Your task to perform on an android device: Go to Amazon Image 0: 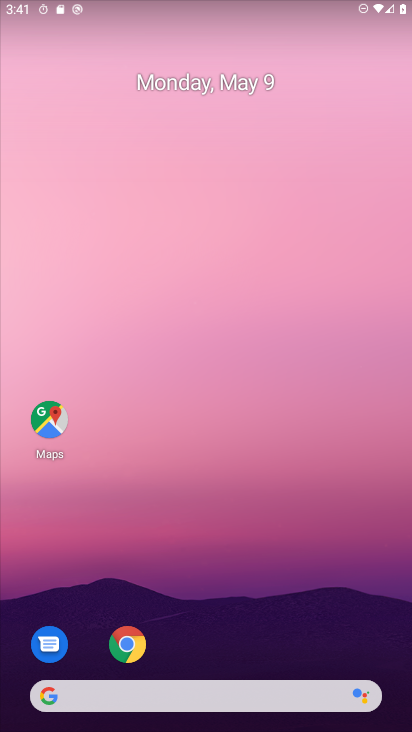
Step 0: drag from (280, 662) to (280, 182)
Your task to perform on an android device: Go to Amazon Image 1: 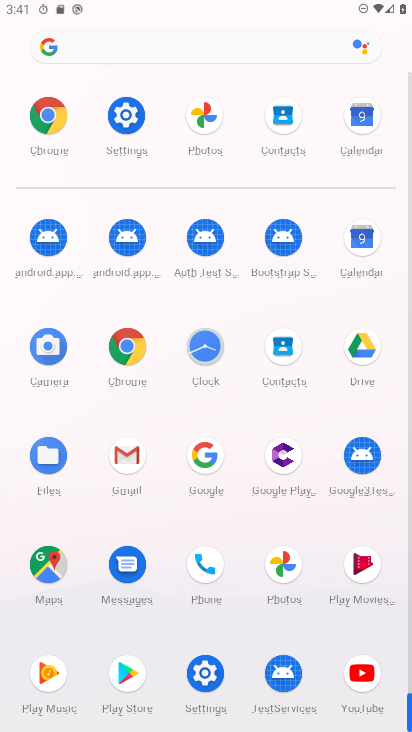
Step 1: click (132, 384)
Your task to perform on an android device: Go to Amazon Image 2: 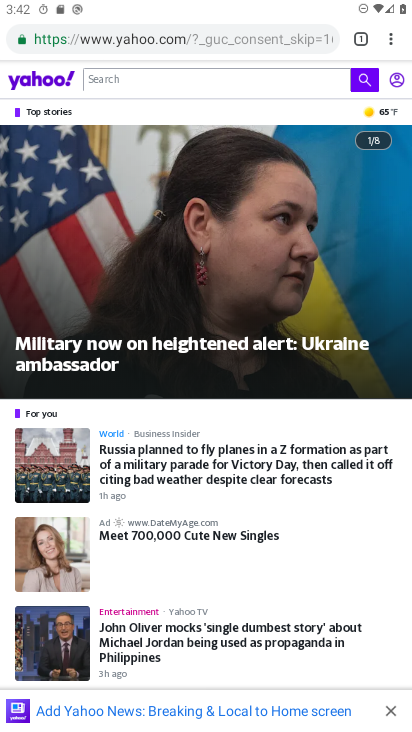
Step 2: click (356, 45)
Your task to perform on an android device: Go to Amazon Image 3: 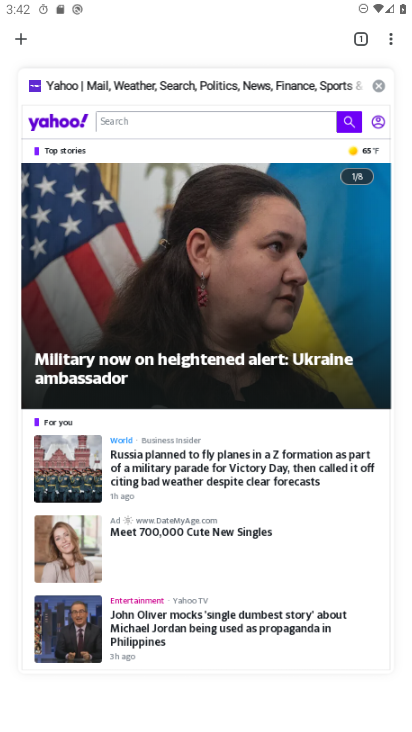
Step 3: click (20, 43)
Your task to perform on an android device: Go to Amazon Image 4: 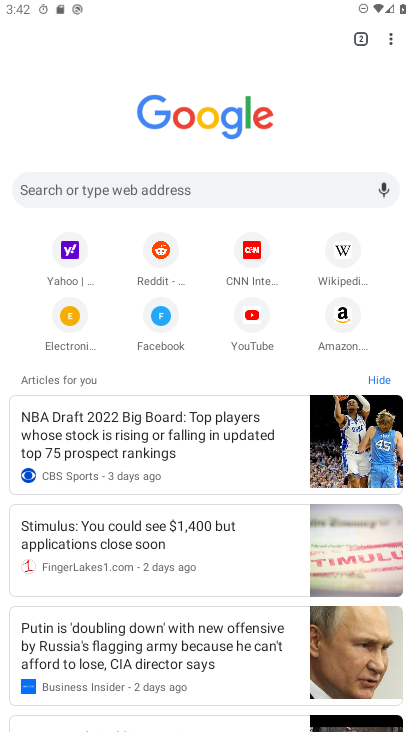
Step 4: click (350, 331)
Your task to perform on an android device: Go to Amazon Image 5: 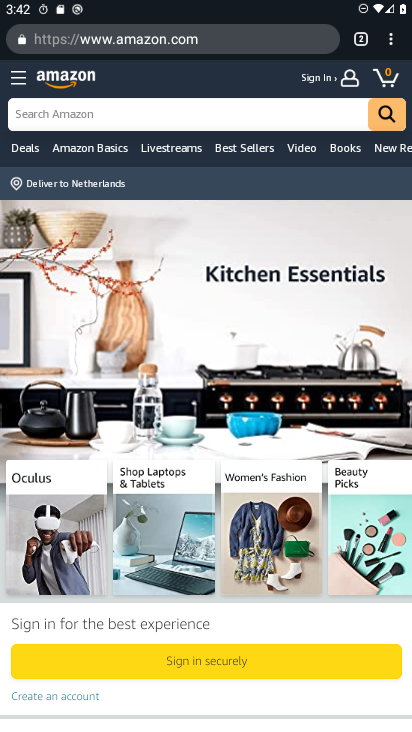
Step 5: task complete